Your task to perform on an android device: Is it going to rain today? Image 0: 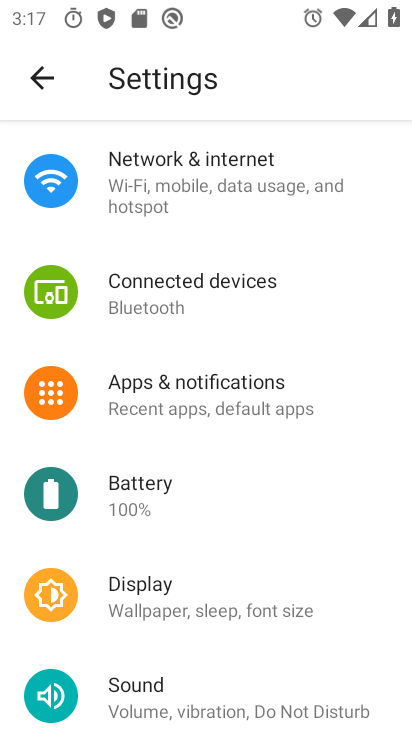
Step 0: press home button
Your task to perform on an android device: Is it going to rain today? Image 1: 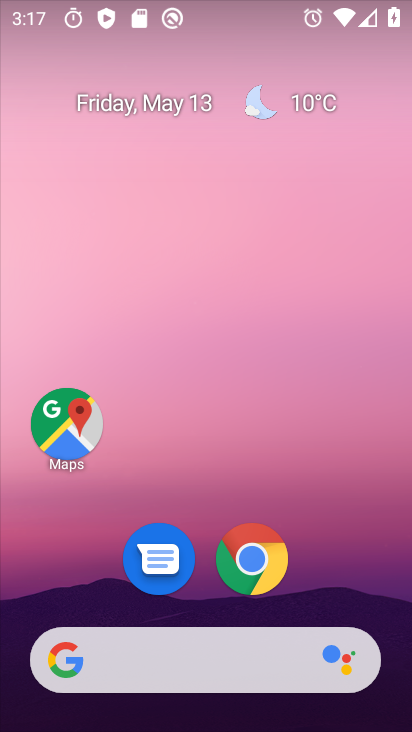
Step 1: drag from (204, 606) to (206, 243)
Your task to perform on an android device: Is it going to rain today? Image 2: 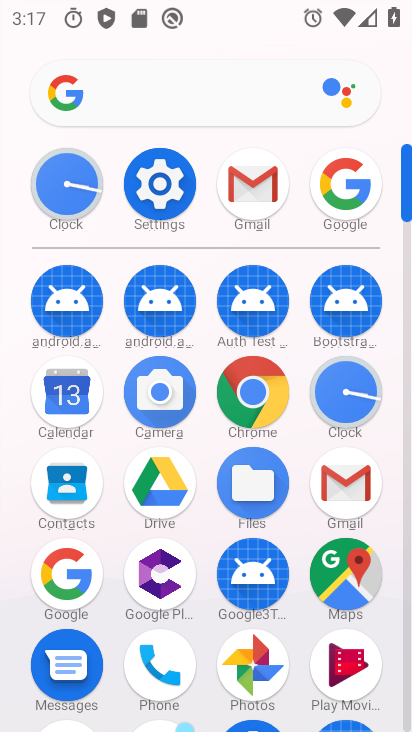
Step 2: click (87, 578)
Your task to perform on an android device: Is it going to rain today? Image 3: 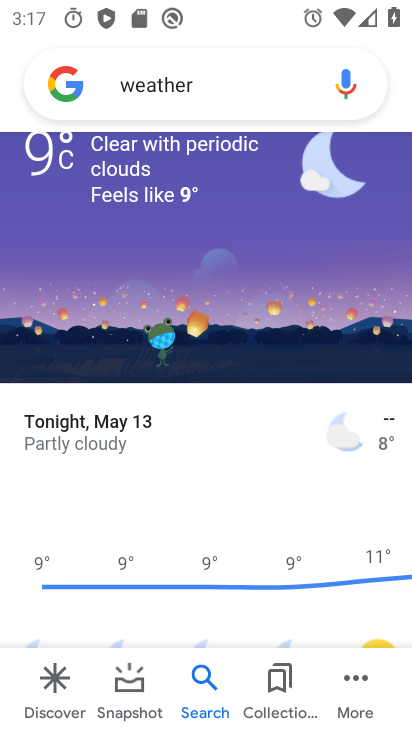
Step 3: task complete